Your task to perform on an android device: Check the news Image 0: 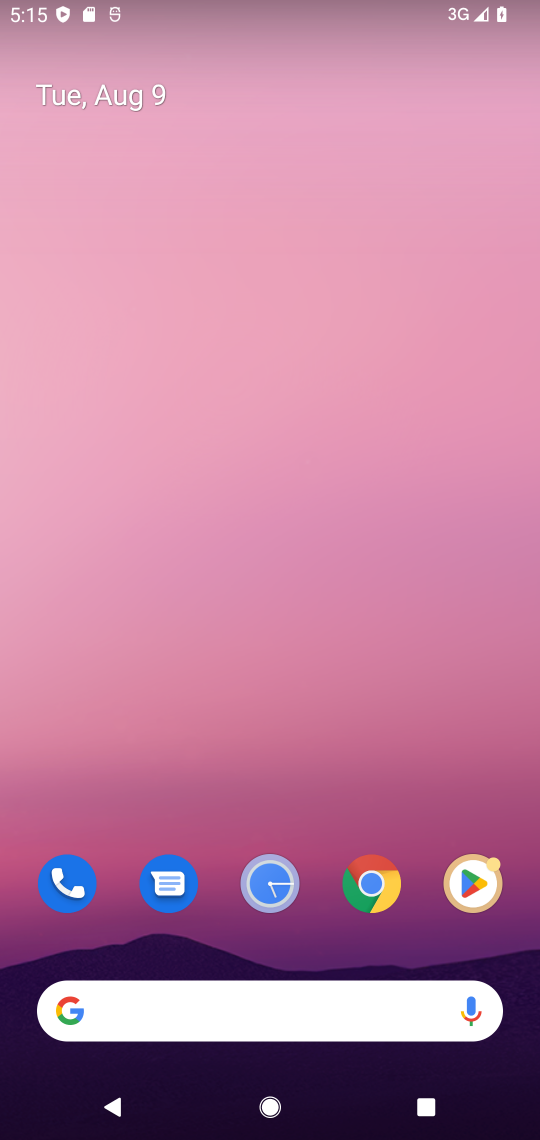
Step 0: drag from (266, 604) to (249, 172)
Your task to perform on an android device: Check the news Image 1: 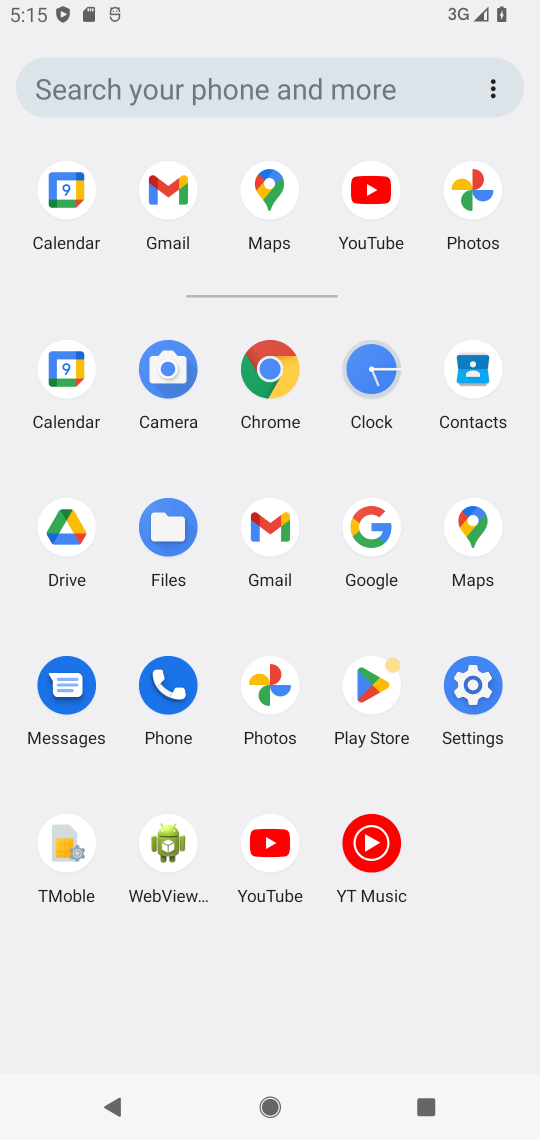
Step 1: click (357, 528)
Your task to perform on an android device: Check the news Image 2: 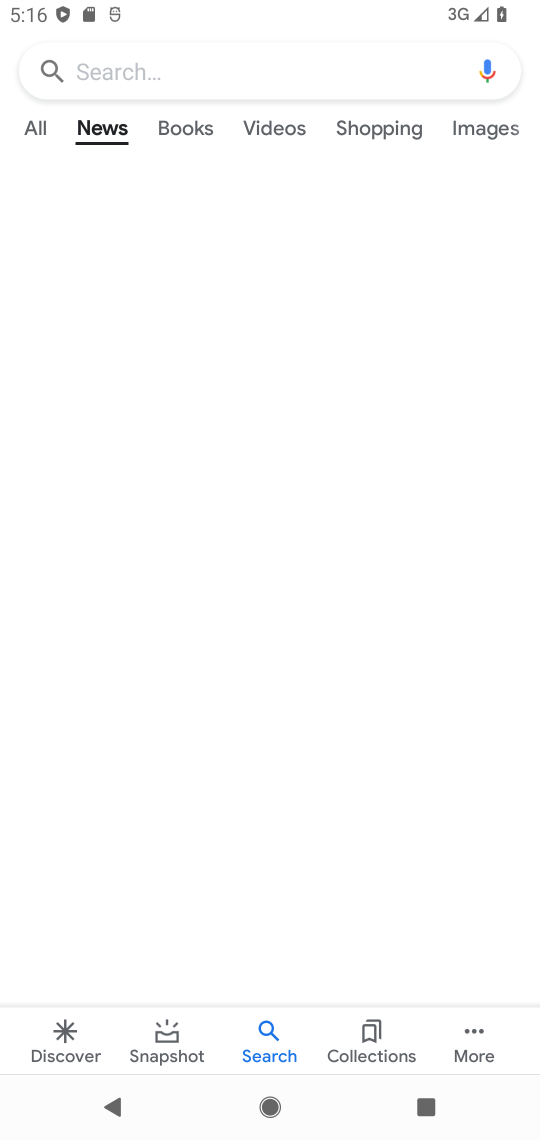
Step 2: task complete